Your task to perform on an android device: star an email in the gmail app Image 0: 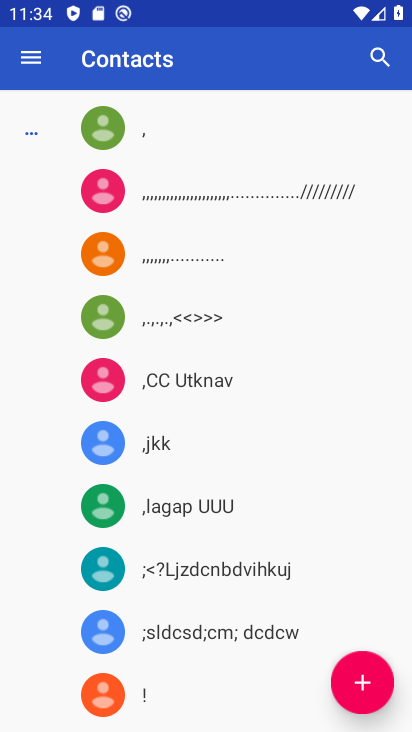
Step 0: drag from (333, 555) to (293, 86)
Your task to perform on an android device: star an email in the gmail app Image 1: 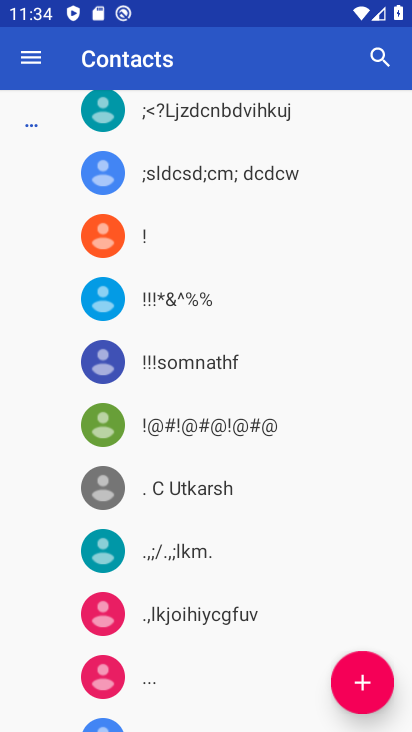
Step 1: press home button
Your task to perform on an android device: star an email in the gmail app Image 2: 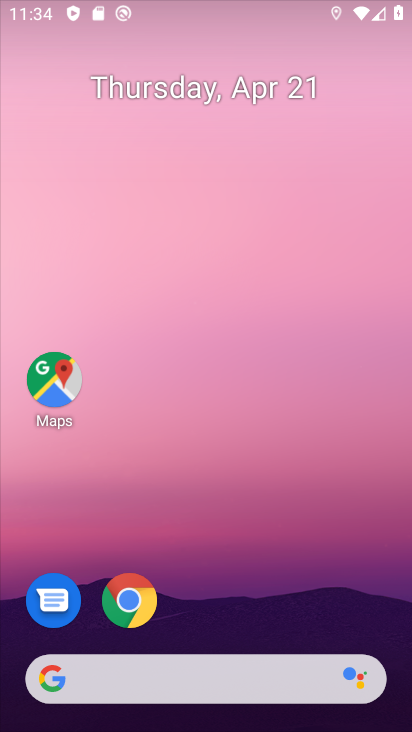
Step 2: drag from (218, 547) to (184, 99)
Your task to perform on an android device: star an email in the gmail app Image 3: 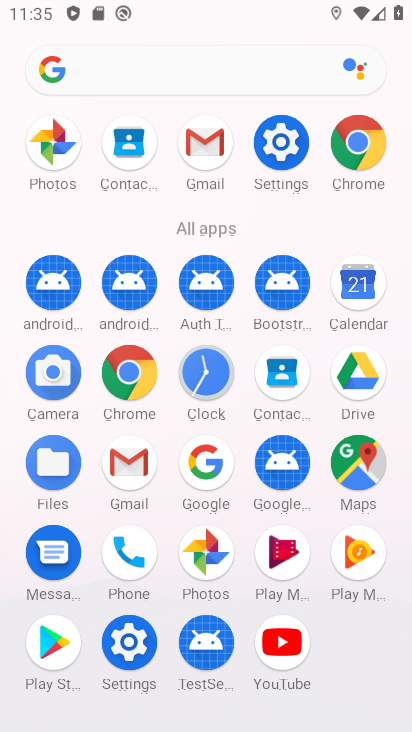
Step 3: click (207, 151)
Your task to perform on an android device: star an email in the gmail app Image 4: 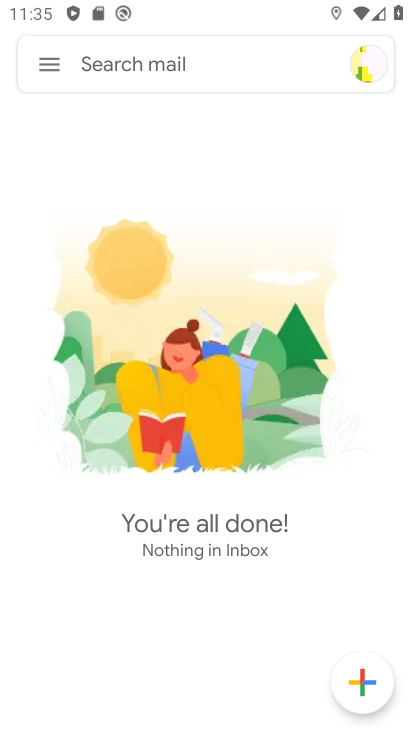
Step 4: click (52, 58)
Your task to perform on an android device: star an email in the gmail app Image 5: 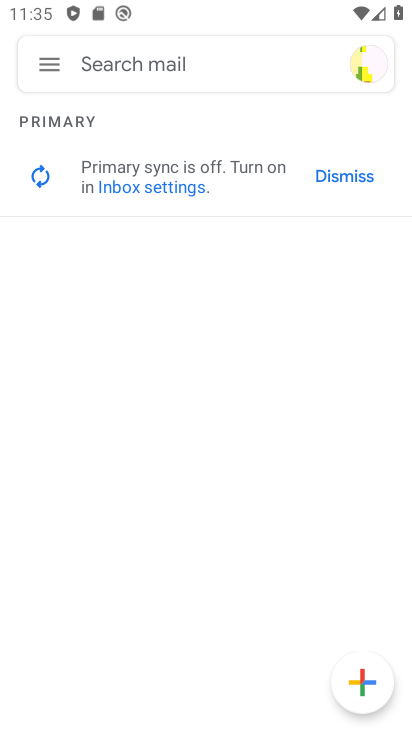
Step 5: click (47, 67)
Your task to perform on an android device: star an email in the gmail app Image 6: 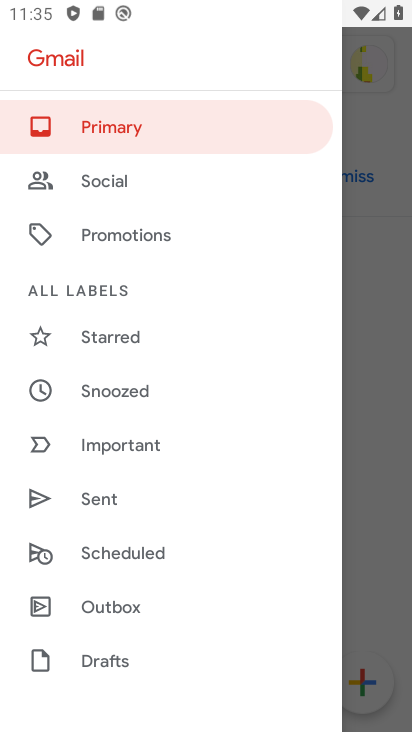
Step 6: drag from (182, 641) to (177, 185)
Your task to perform on an android device: star an email in the gmail app Image 7: 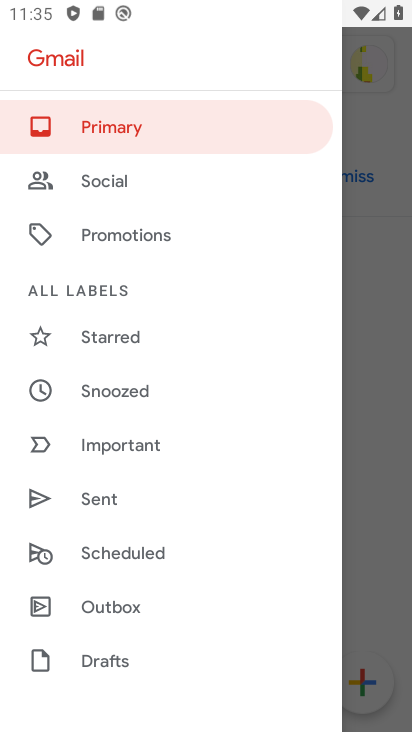
Step 7: drag from (128, 561) to (158, 296)
Your task to perform on an android device: star an email in the gmail app Image 8: 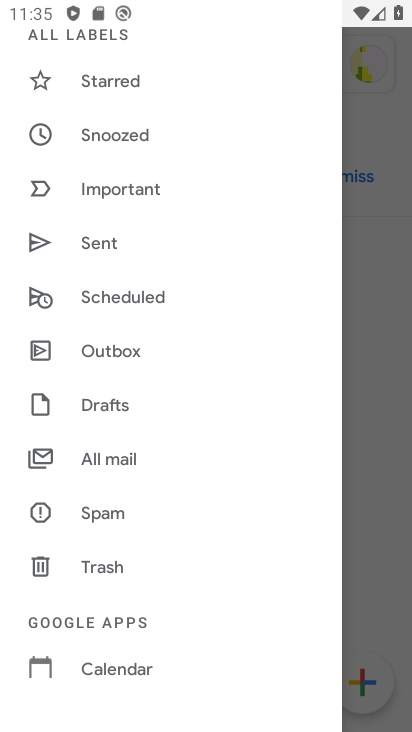
Step 8: click (119, 464)
Your task to perform on an android device: star an email in the gmail app Image 9: 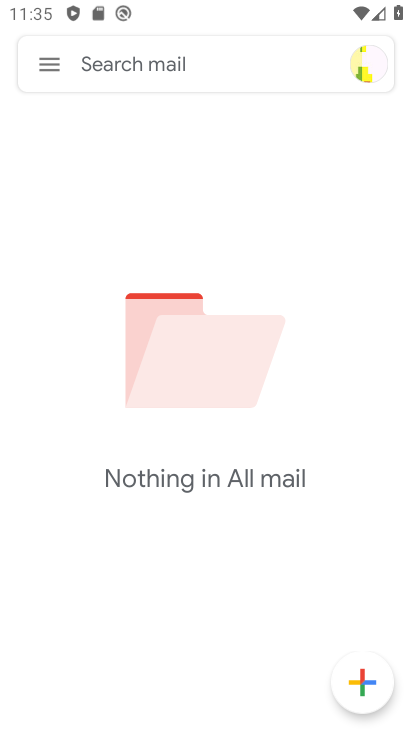
Step 9: task complete